Your task to perform on an android device: Set an alarm for 6pm Image 0: 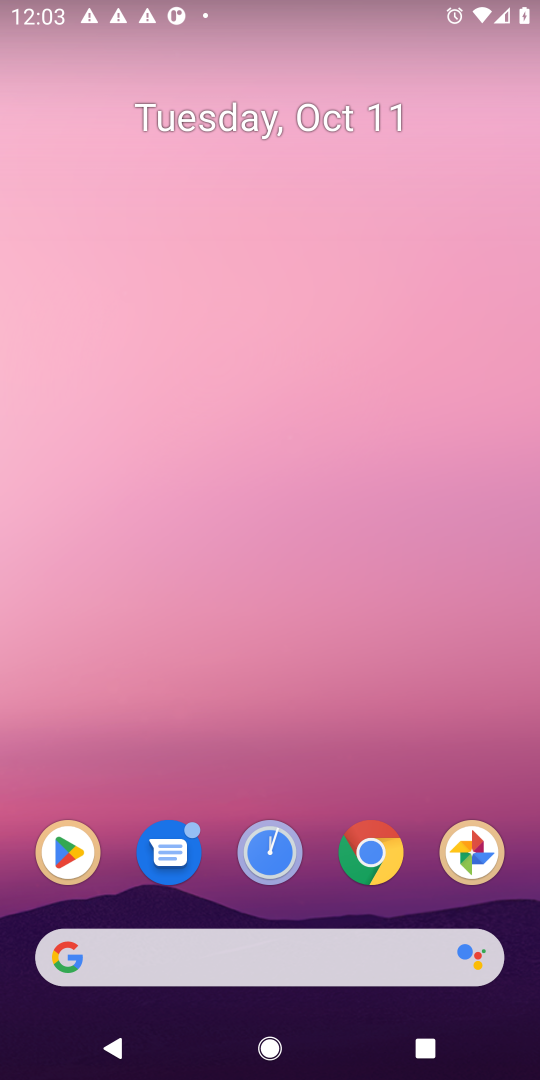
Step 0: click (263, 830)
Your task to perform on an android device: Set an alarm for 6pm Image 1: 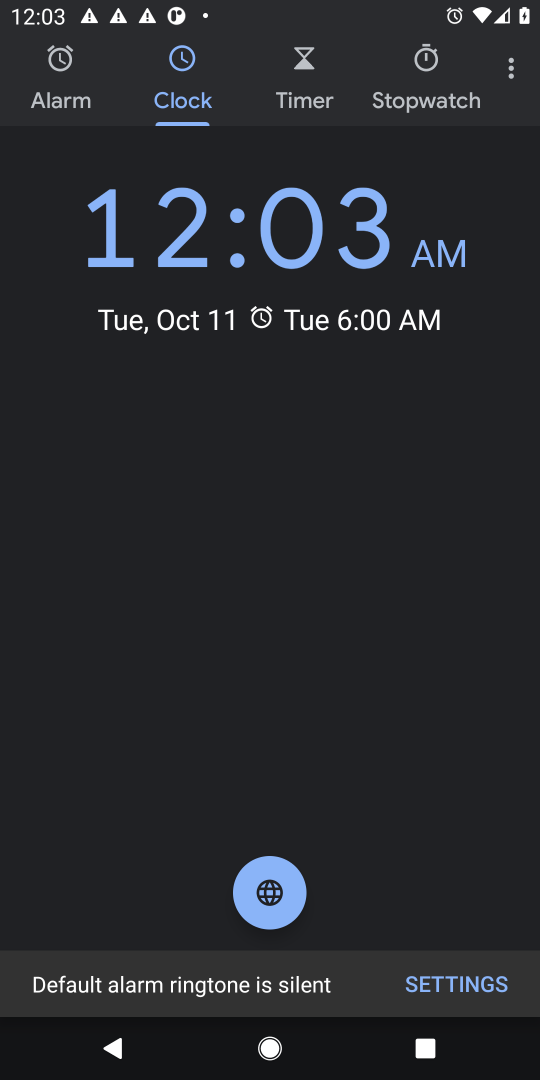
Step 1: click (71, 66)
Your task to perform on an android device: Set an alarm for 6pm Image 2: 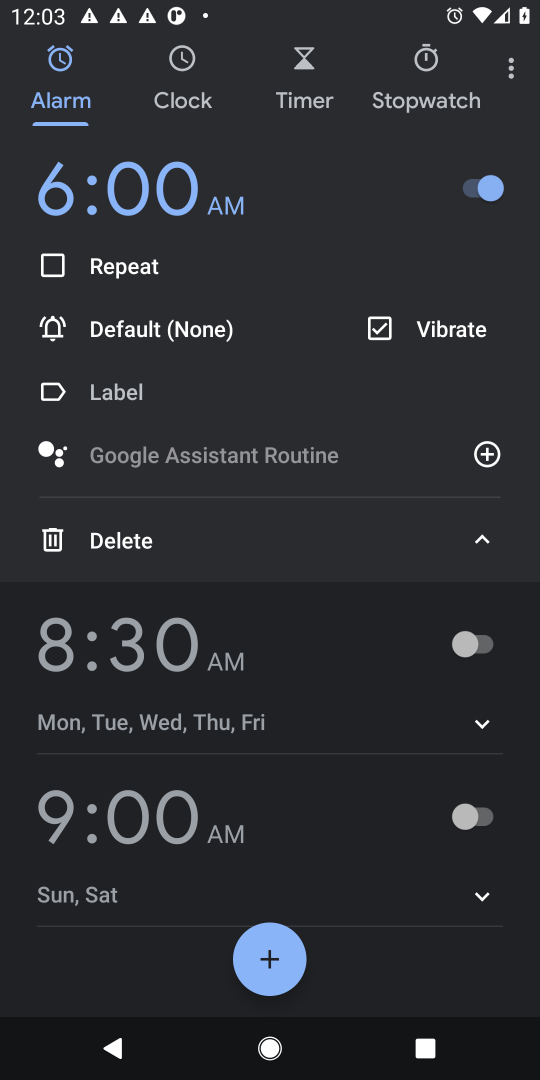
Step 2: click (264, 966)
Your task to perform on an android device: Set an alarm for 6pm Image 3: 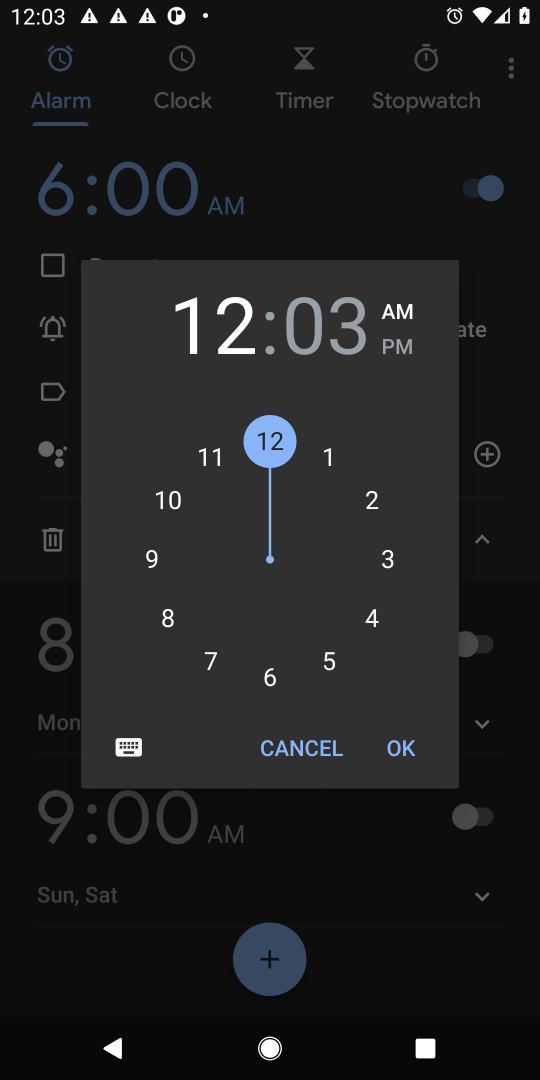
Step 3: click (280, 687)
Your task to perform on an android device: Set an alarm for 6pm Image 4: 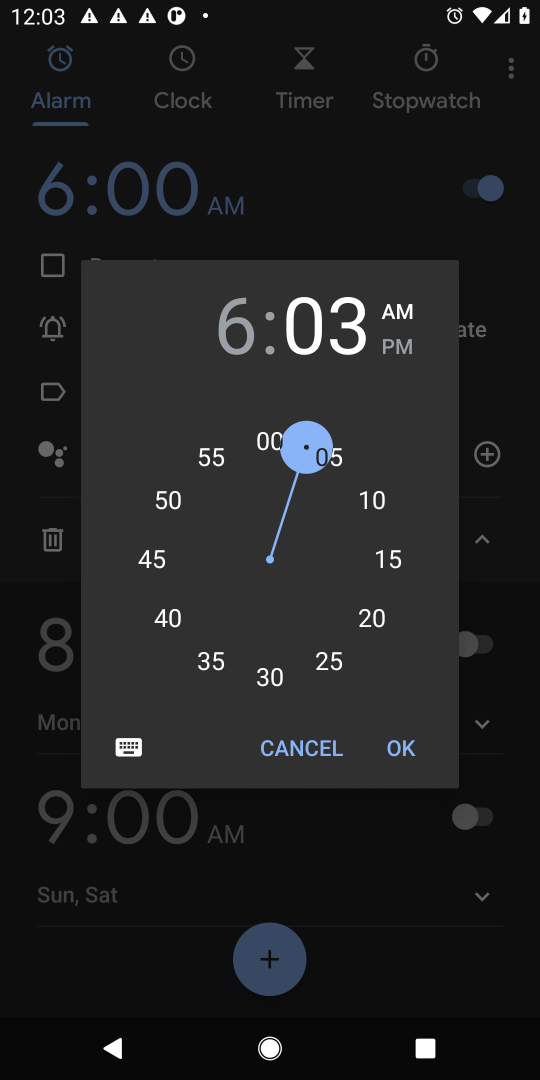
Step 4: click (269, 439)
Your task to perform on an android device: Set an alarm for 6pm Image 5: 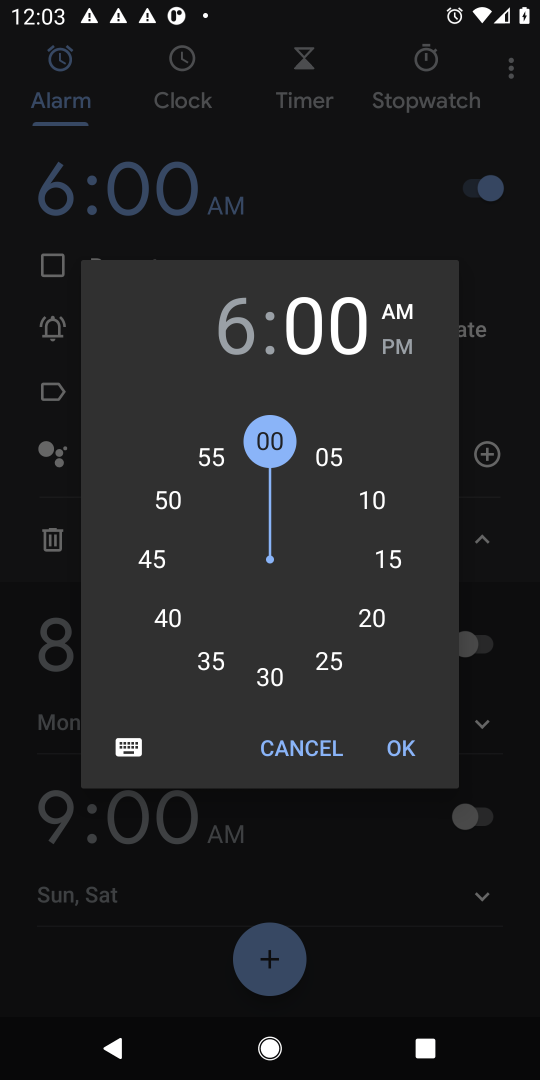
Step 5: click (399, 349)
Your task to perform on an android device: Set an alarm for 6pm Image 6: 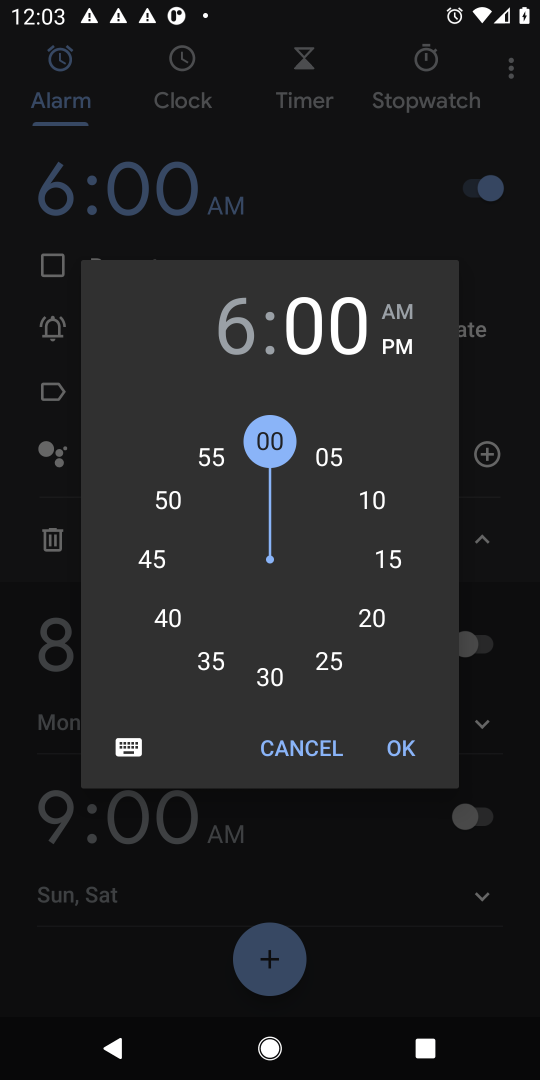
Step 6: click (417, 744)
Your task to perform on an android device: Set an alarm for 6pm Image 7: 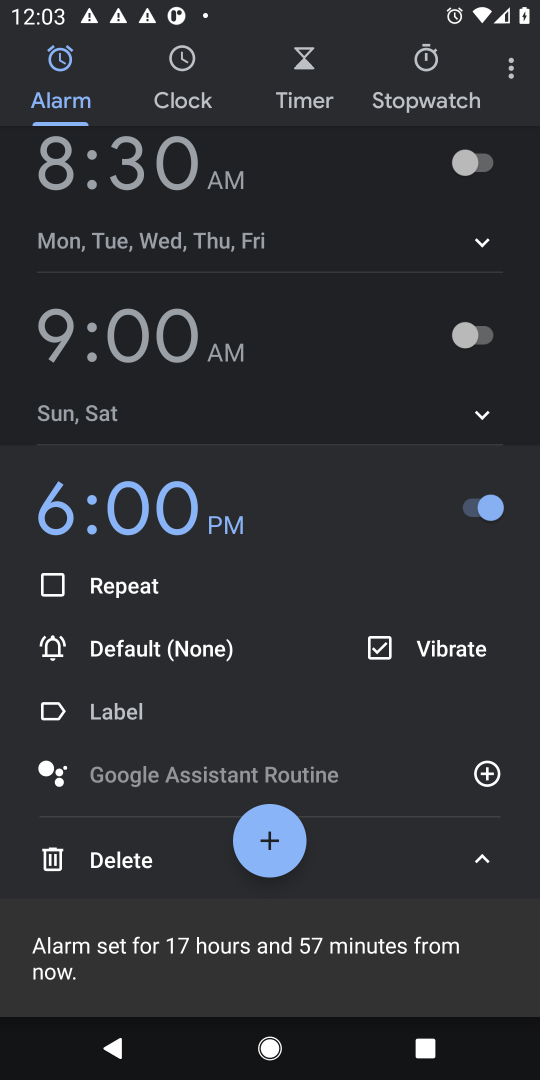
Step 7: task complete